Your task to perform on an android device: read, delete, or share a saved page in the chrome app Image 0: 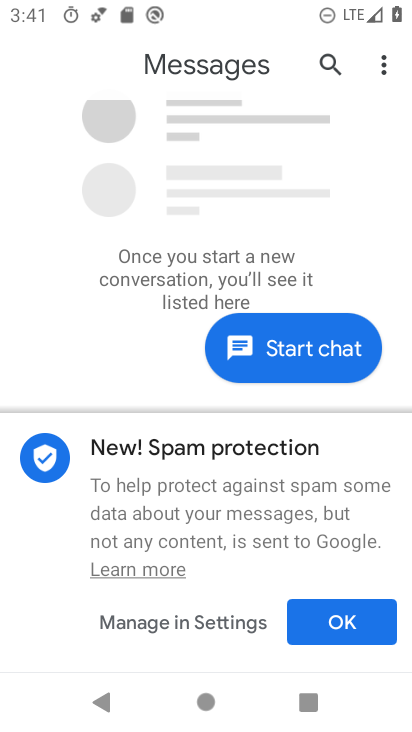
Step 0: press home button
Your task to perform on an android device: read, delete, or share a saved page in the chrome app Image 1: 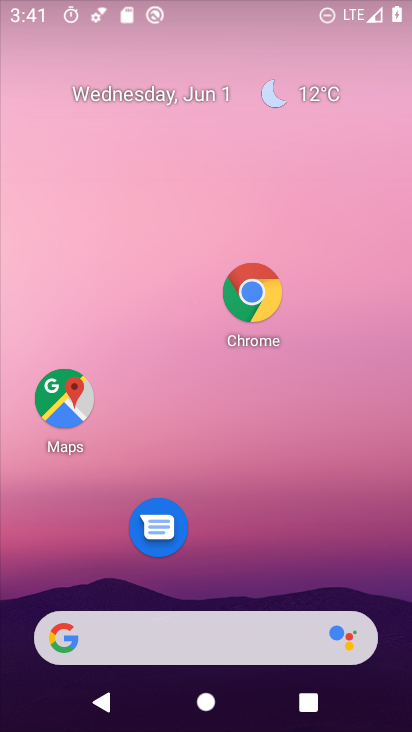
Step 1: drag from (239, 459) to (245, 237)
Your task to perform on an android device: read, delete, or share a saved page in the chrome app Image 2: 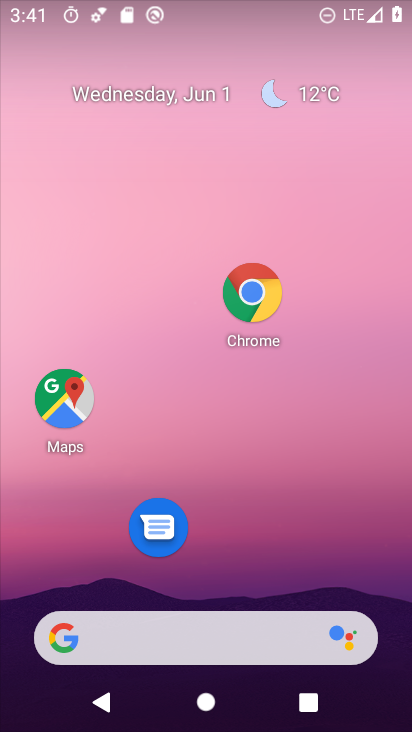
Step 2: drag from (194, 564) to (176, 184)
Your task to perform on an android device: read, delete, or share a saved page in the chrome app Image 3: 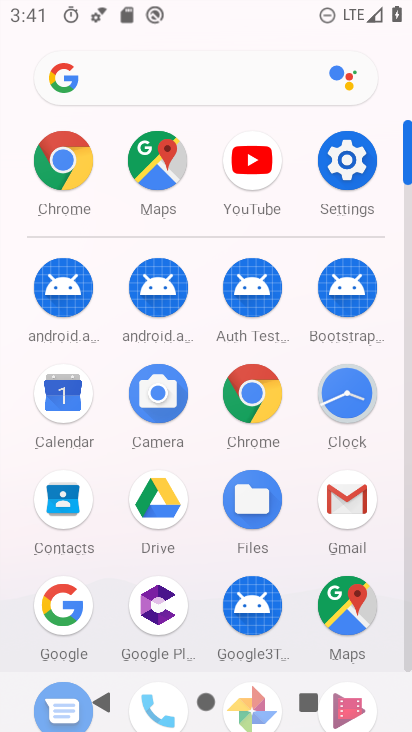
Step 3: click (254, 422)
Your task to perform on an android device: read, delete, or share a saved page in the chrome app Image 4: 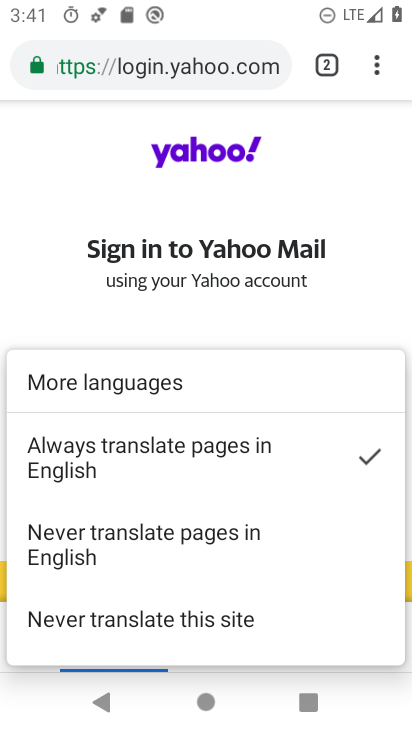
Step 4: click (378, 80)
Your task to perform on an android device: read, delete, or share a saved page in the chrome app Image 5: 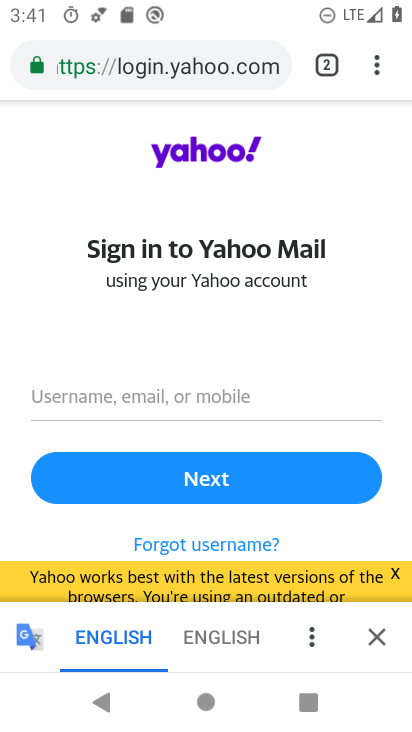
Step 5: click (383, 65)
Your task to perform on an android device: read, delete, or share a saved page in the chrome app Image 6: 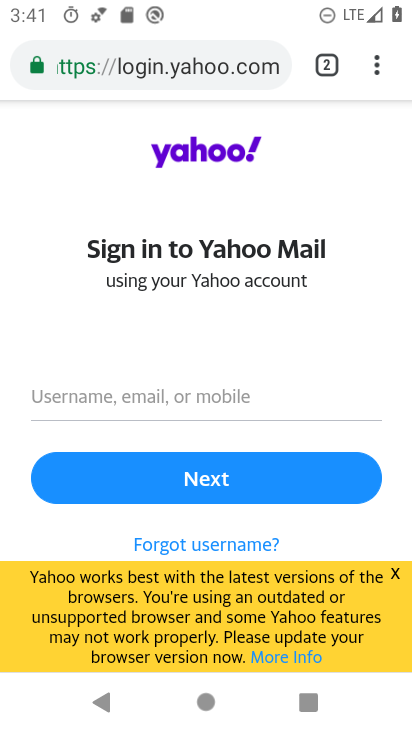
Step 6: click (382, 65)
Your task to perform on an android device: read, delete, or share a saved page in the chrome app Image 7: 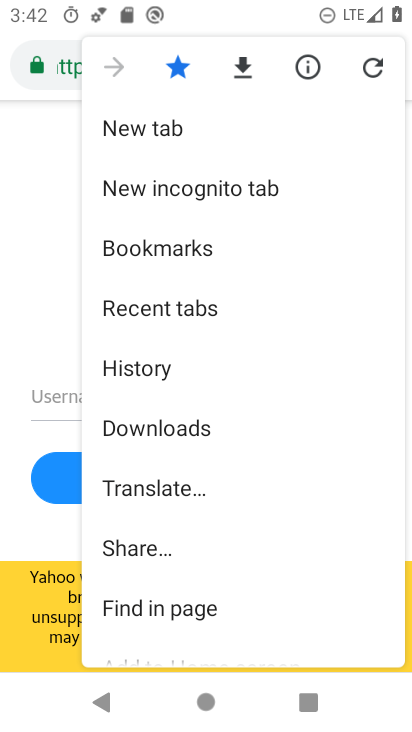
Step 7: drag from (164, 495) to (148, 342)
Your task to perform on an android device: read, delete, or share a saved page in the chrome app Image 8: 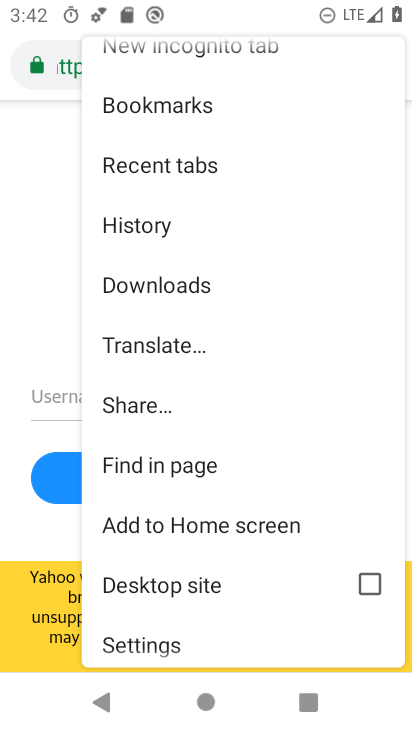
Step 8: click (174, 290)
Your task to perform on an android device: read, delete, or share a saved page in the chrome app Image 9: 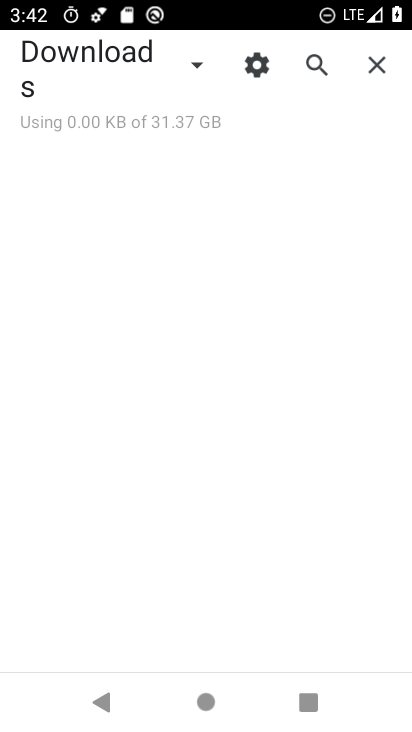
Step 9: click (184, 57)
Your task to perform on an android device: read, delete, or share a saved page in the chrome app Image 10: 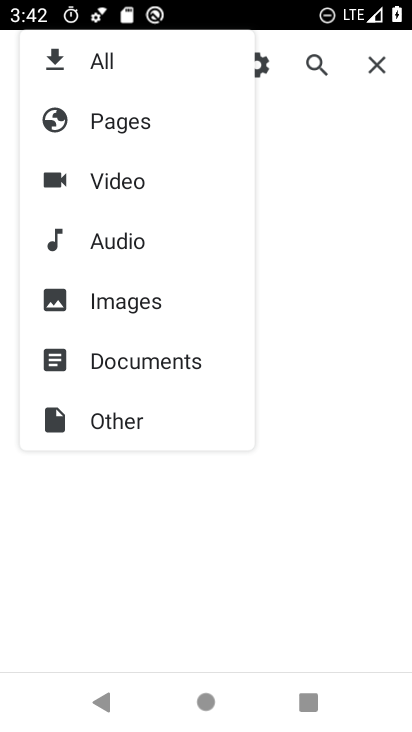
Step 10: click (130, 123)
Your task to perform on an android device: read, delete, or share a saved page in the chrome app Image 11: 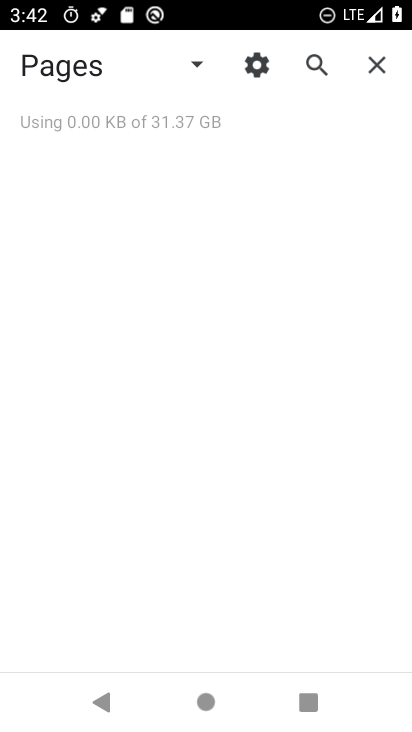
Step 11: task complete